Your task to perform on an android device: open app "Yahoo Mail" (install if not already installed) Image 0: 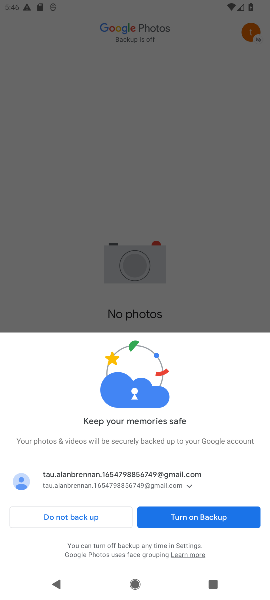
Step 0: press home button
Your task to perform on an android device: open app "Yahoo Mail" (install if not already installed) Image 1: 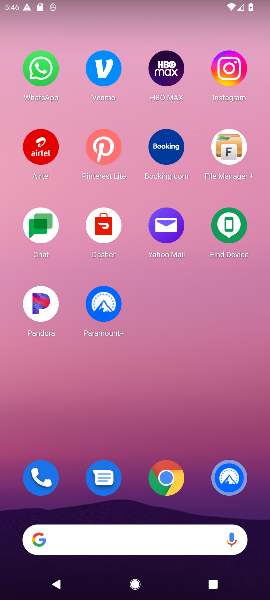
Step 1: drag from (118, 401) to (136, 29)
Your task to perform on an android device: open app "Yahoo Mail" (install if not already installed) Image 2: 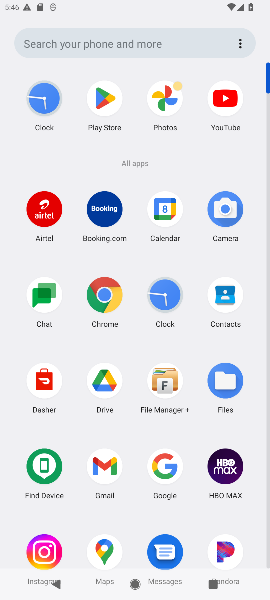
Step 2: drag from (137, 398) to (155, 284)
Your task to perform on an android device: open app "Yahoo Mail" (install if not already installed) Image 3: 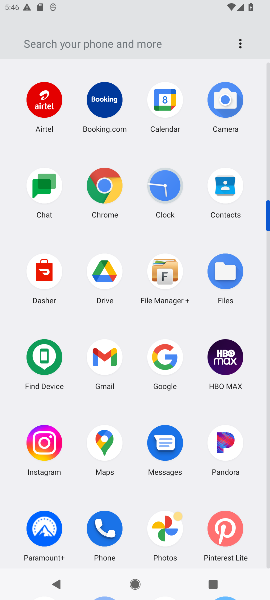
Step 3: drag from (133, 169) to (127, 356)
Your task to perform on an android device: open app "Yahoo Mail" (install if not already installed) Image 4: 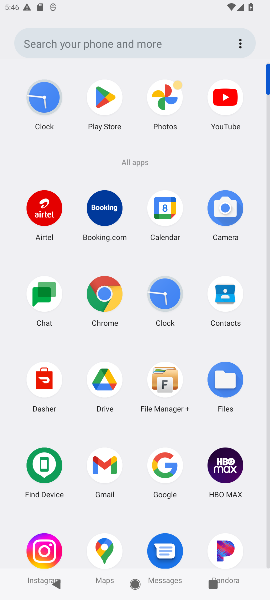
Step 4: click (109, 91)
Your task to perform on an android device: open app "Yahoo Mail" (install if not already installed) Image 5: 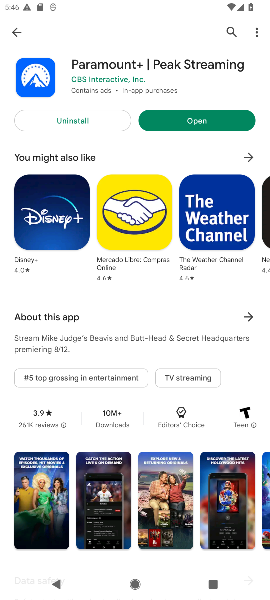
Step 5: click (231, 26)
Your task to perform on an android device: open app "Yahoo Mail" (install if not already installed) Image 6: 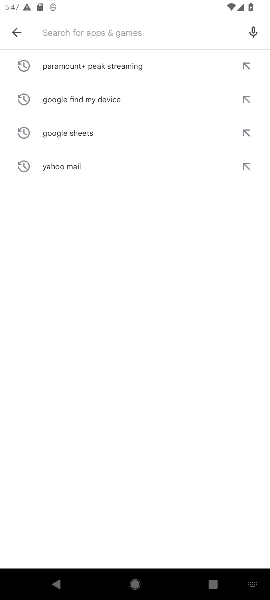
Step 6: click (180, 38)
Your task to perform on an android device: open app "Yahoo Mail" (install if not already installed) Image 7: 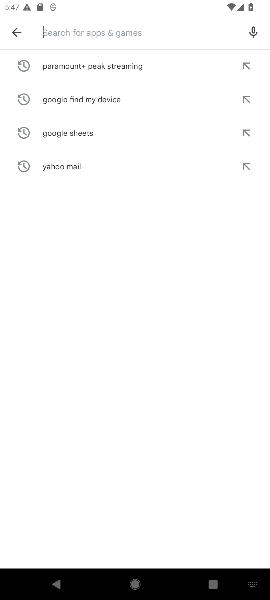
Step 7: click (69, 165)
Your task to perform on an android device: open app "Yahoo Mail" (install if not already installed) Image 8: 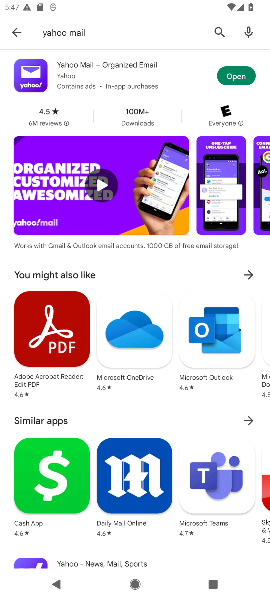
Step 8: click (233, 71)
Your task to perform on an android device: open app "Yahoo Mail" (install if not already installed) Image 9: 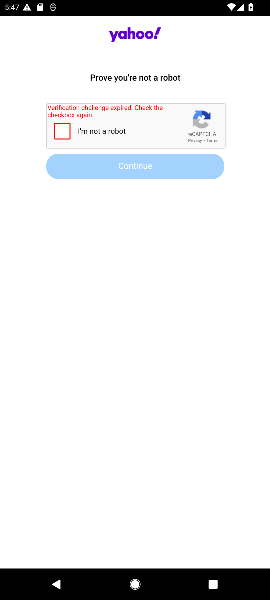
Step 9: task complete